Your task to perform on an android device: turn off smart reply in the gmail app Image 0: 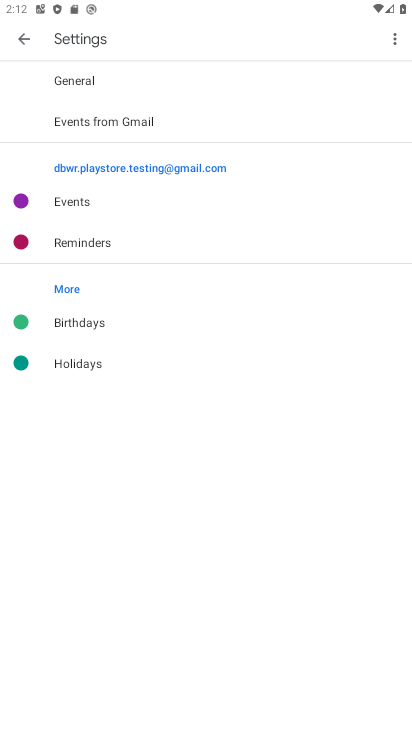
Step 0: press home button
Your task to perform on an android device: turn off smart reply in the gmail app Image 1: 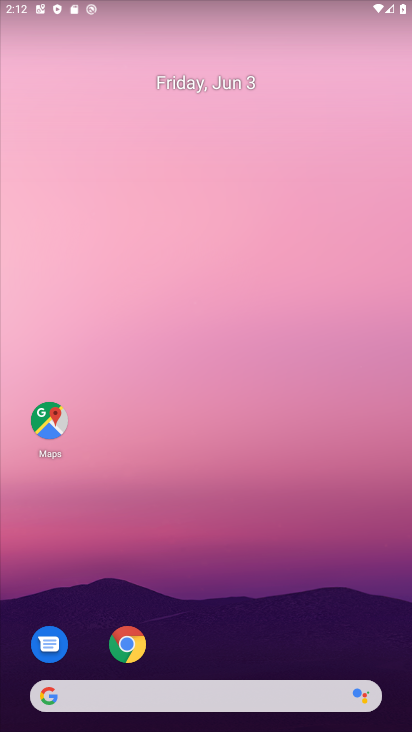
Step 1: drag from (214, 648) to (233, 331)
Your task to perform on an android device: turn off smart reply in the gmail app Image 2: 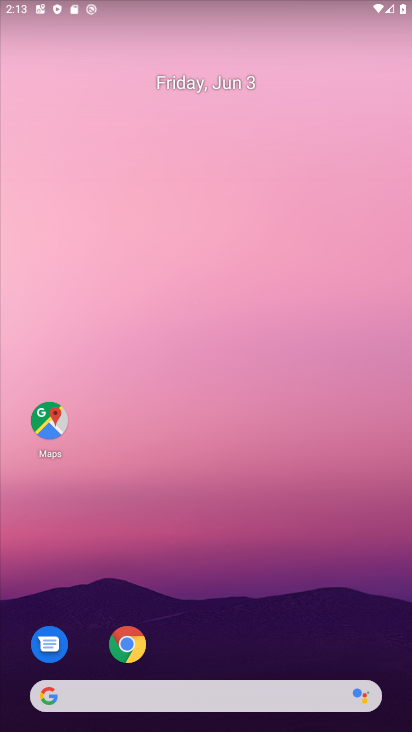
Step 2: drag from (197, 667) to (204, 139)
Your task to perform on an android device: turn off smart reply in the gmail app Image 3: 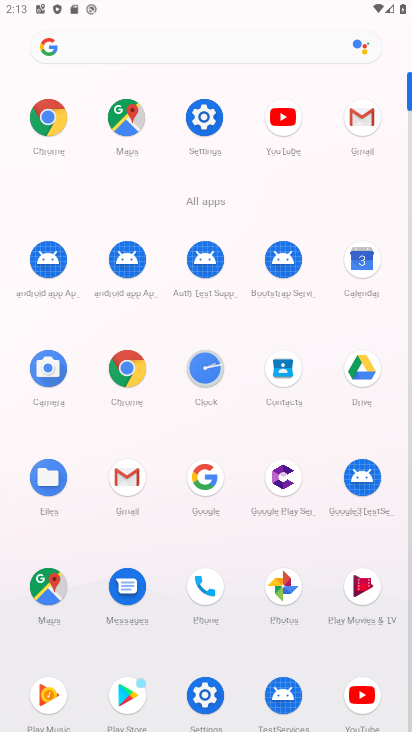
Step 3: click (137, 480)
Your task to perform on an android device: turn off smart reply in the gmail app Image 4: 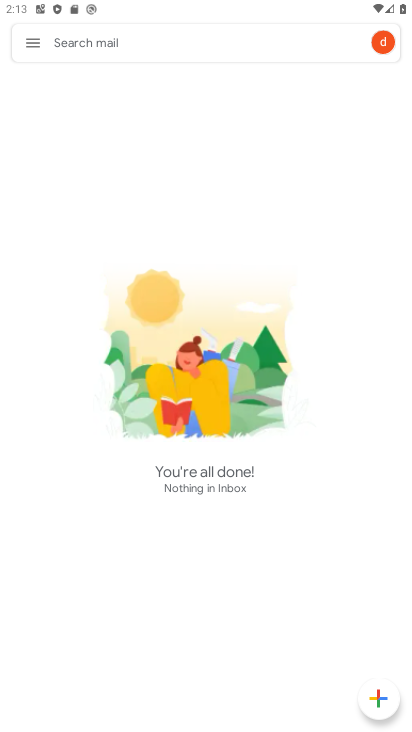
Step 4: click (28, 42)
Your task to perform on an android device: turn off smart reply in the gmail app Image 5: 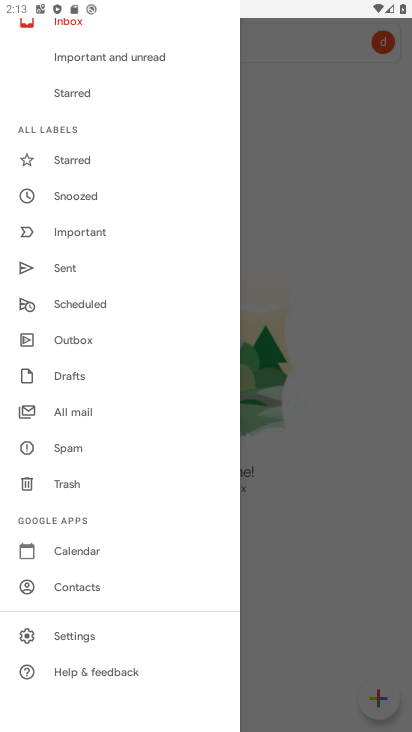
Step 5: click (92, 628)
Your task to perform on an android device: turn off smart reply in the gmail app Image 6: 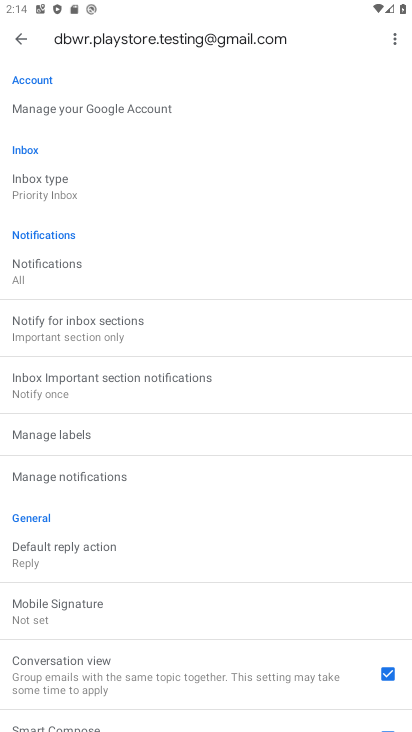
Step 6: drag from (147, 622) to (183, 321)
Your task to perform on an android device: turn off smart reply in the gmail app Image 7: 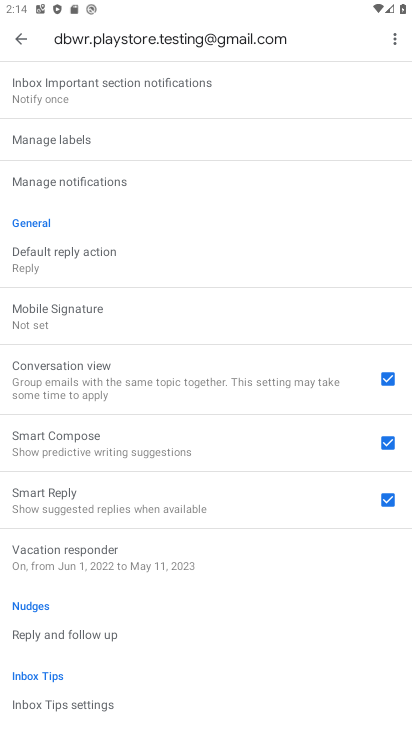
Step 7: click (381, 496)
Your task to perform on an android device: turn off smart reply in the gmail app Image 8: 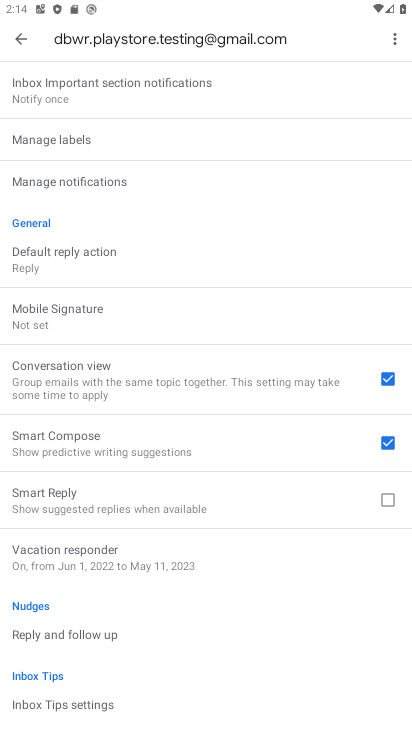
Step 8: task complete